Your task to perform on an android device: make emails show in primary in the gmail app Image 0: 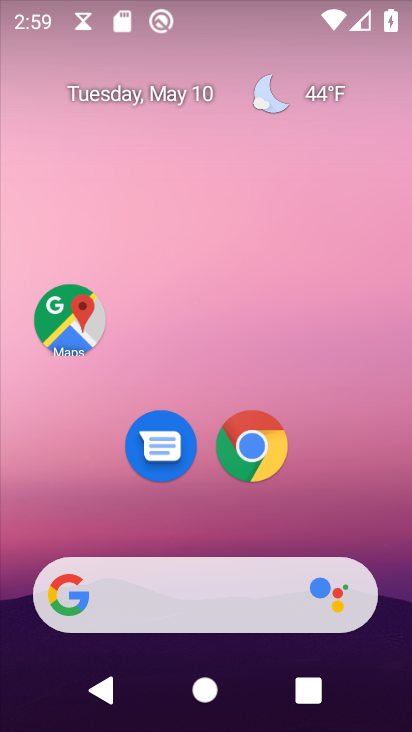
Step 0: drag from (359, 499) to (335, 42)
Your task to perform on an android device: make emails show in primary in the gmail app Image 1: 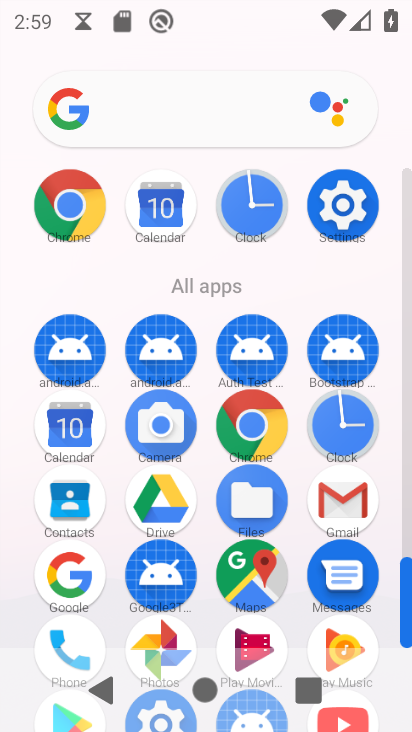
Step 1: click (358, 496)
Your task to perform on an android device: make emails show in primary in the gmail app Image 2: 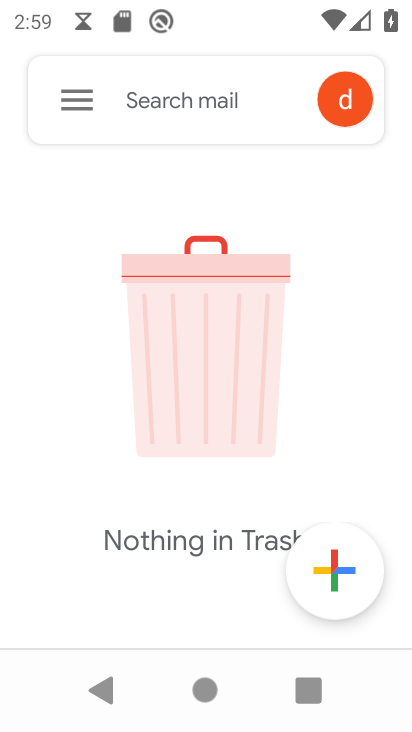
Step 2: click (87, 126)
Your task to perform on an android device: make emails show in primary in the gmail app Image 3: 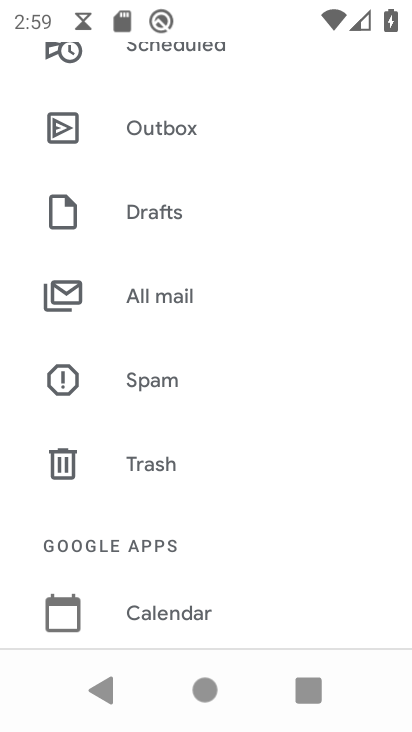
Step 3: drag from (175, 572) to (169, 163)
Your task to perform on an android device: make emails show in primary in the gmail app Image 4: 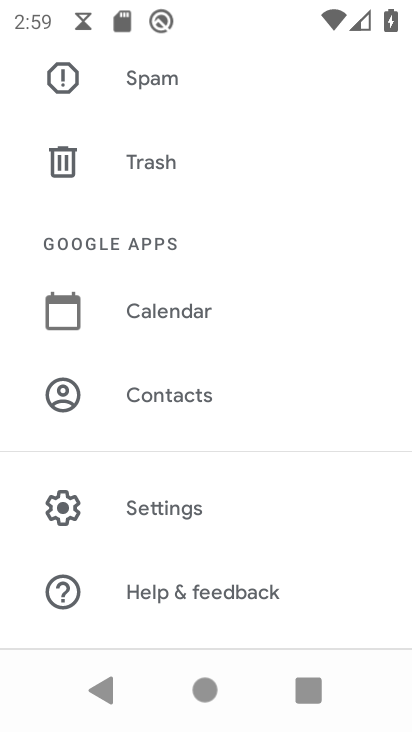
Step 4: click (165, 522)
Your task to perform on an android device: make emails show in primary in the gmail app Image 5: 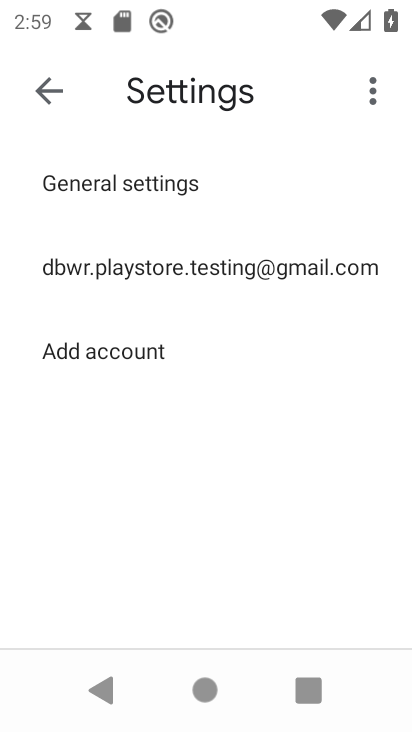
Step 5: click (202, 277)
Your task to perform on an android device: make emails show in primary in the gmail app Image 6: 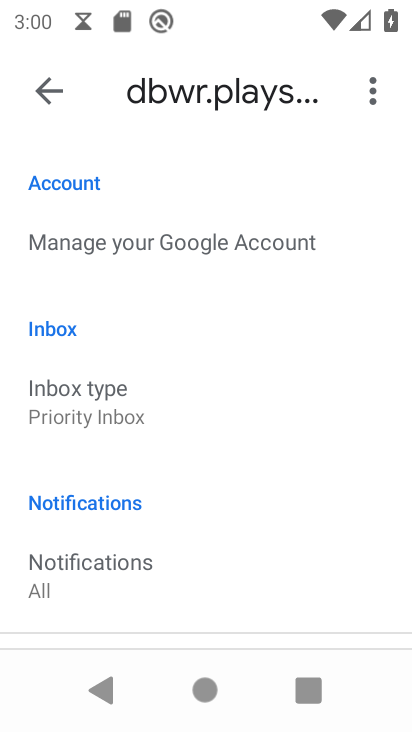
Step 6: drag from (158, 527) to (194, 209)
Your task to perform on an android device: make emails show in primary in the gmail app Image 7: 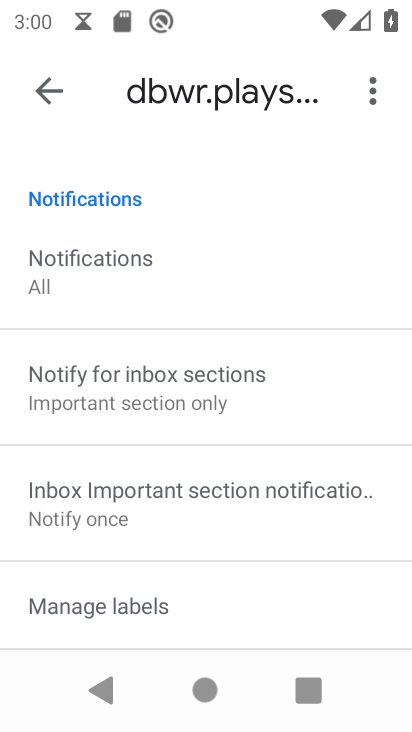
Step 7: drag from (199, 240) to (240, 567)
Your task to perform on an android device: make emails show in primary in the gmail app Image 8: 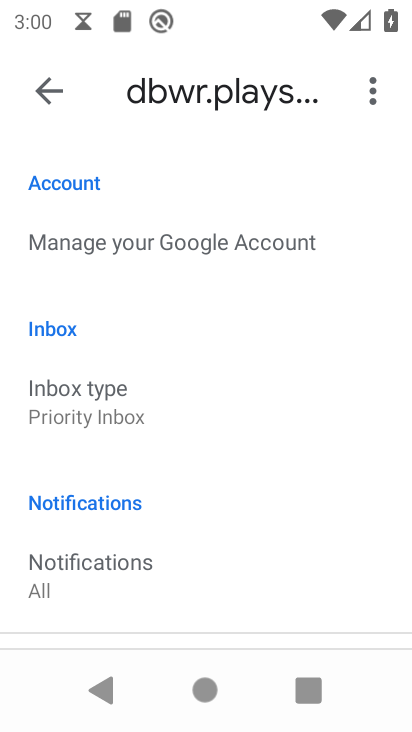
Step 8: click (113, 399)
Your task to perform on an android device: make emails show in primary in the gmail app Image 9: 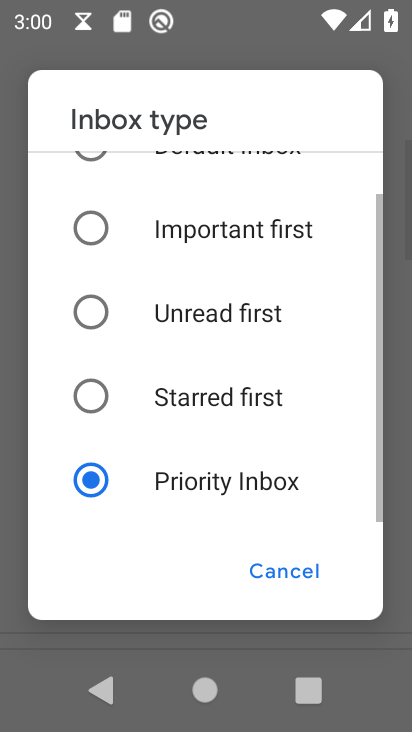
Step 9: drag from (144, 202) to (223, 492)
Your task to perform on an android device: make emails show in primary in the gmail app Image 10: 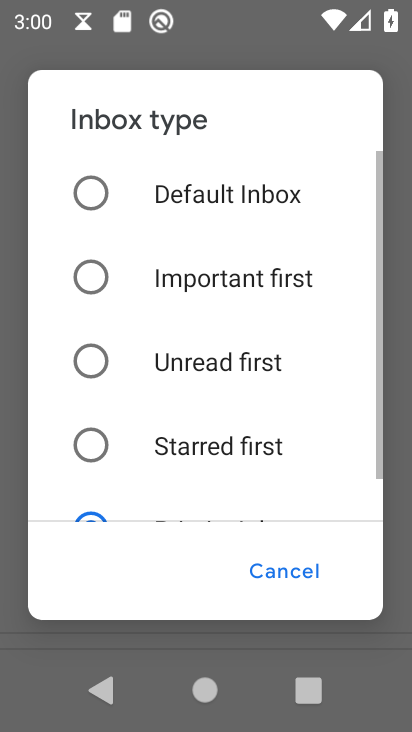
Step 10: click (96, 174)
Your task to perform on an android device: make emails show in primary in the gmail app Image 11: 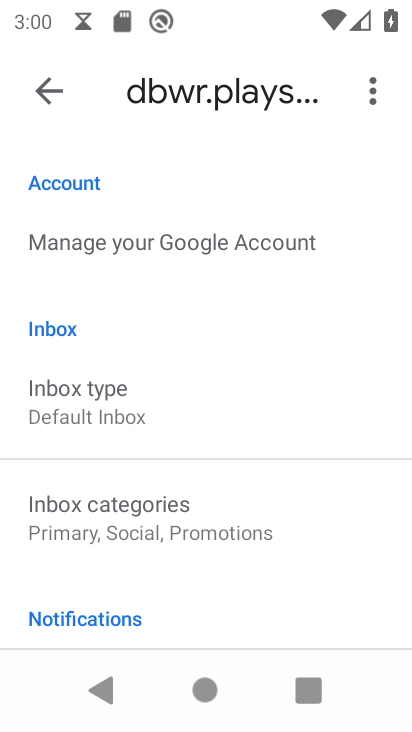
Step 11: task complete